Your task to perform on an android device: What's the weather going to be tomorrow? Image 0: 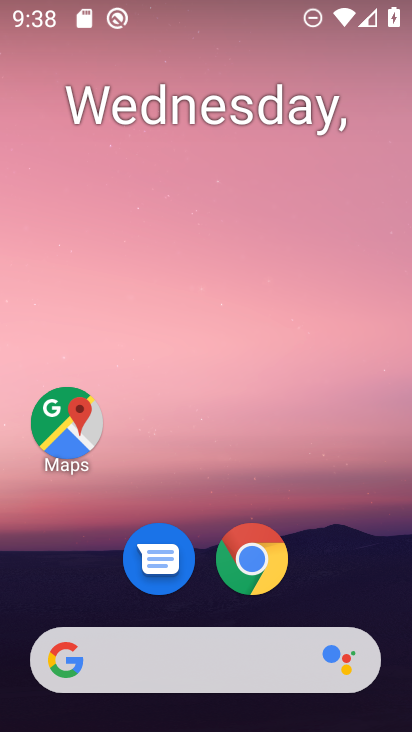
Step 0: click (253, 653)
Your task to perform on an android device: What's the weather going to be tomorrow? Image 1: 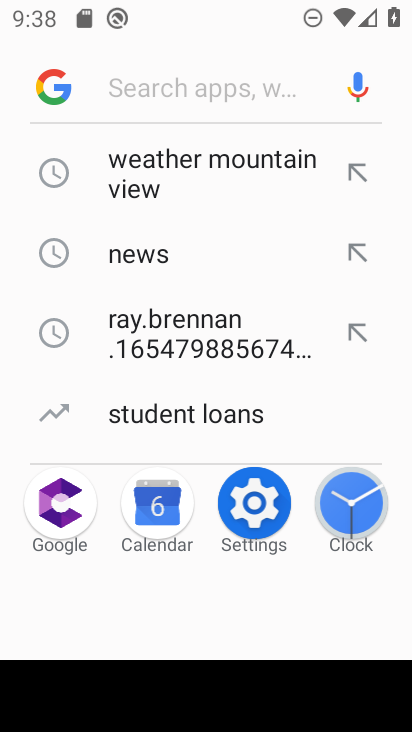
Step 1: click (198, 173)
Your task to perform on an android device: What's the weather going to be tomorrow? Image 2: 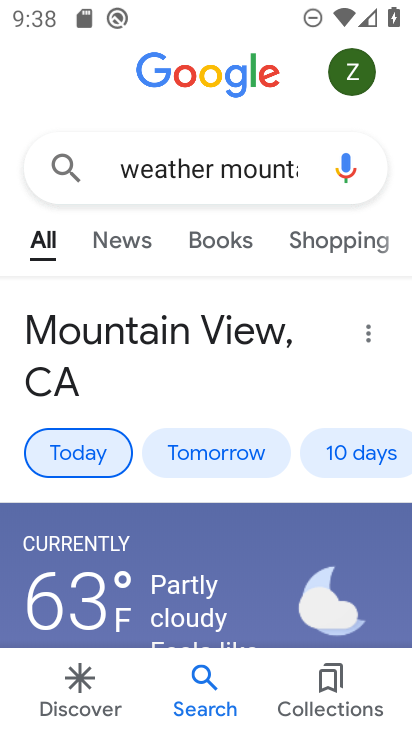
Step 2: click (226, 455)
Your task to perform on an android device: What's the weather going to be tomorrow? Image 3: 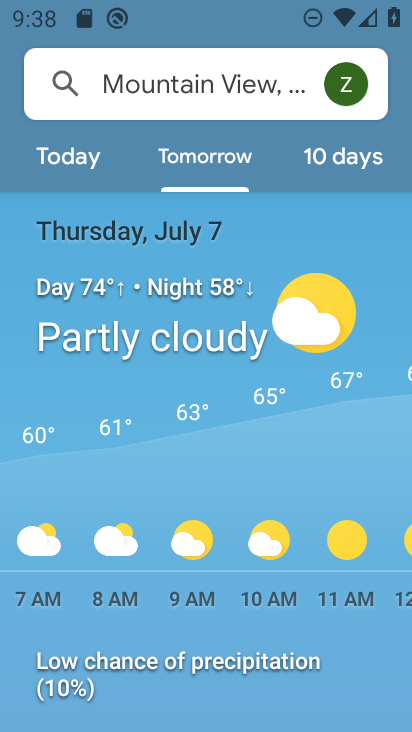
Step 3: task complete